Your task to perform on an android device: Search for flights from NYC to Paris Image 0: 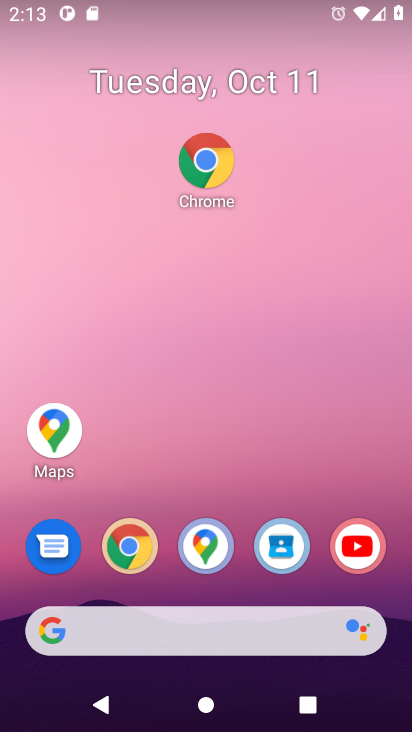
Step 0: click (126, 551)
Your task to perform on an android device: Search for flights from NYC to Paris Image 1: 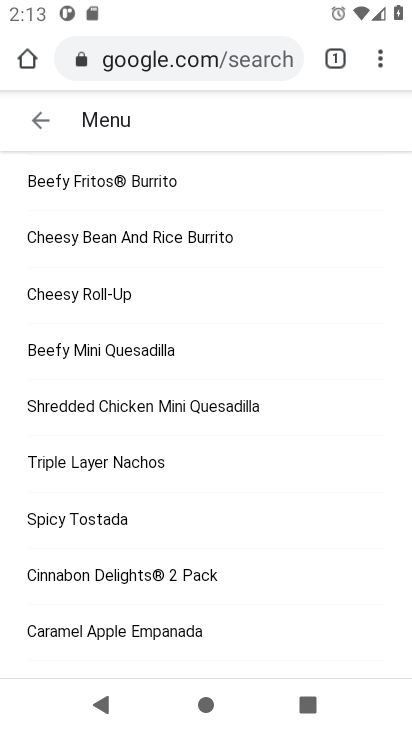
Step 1: click (182, 62)
Your task to perform on an android device: Search for flights from NYC to Paris Image 2: 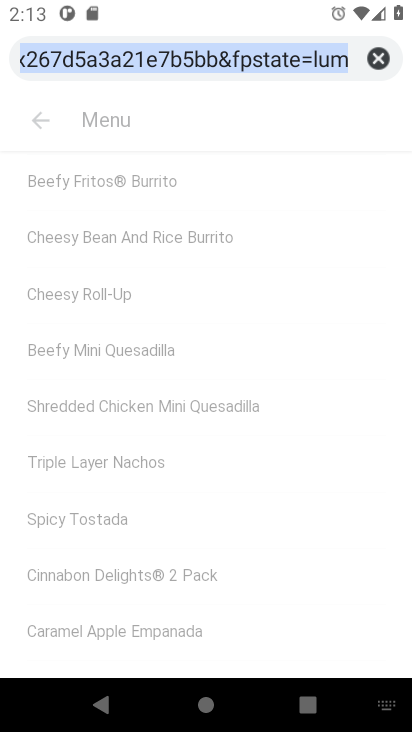
Step 2: type "flights from NYC to Paris"
Your task to perform on an android device: Search for flights from NYC to Paris Image 3: 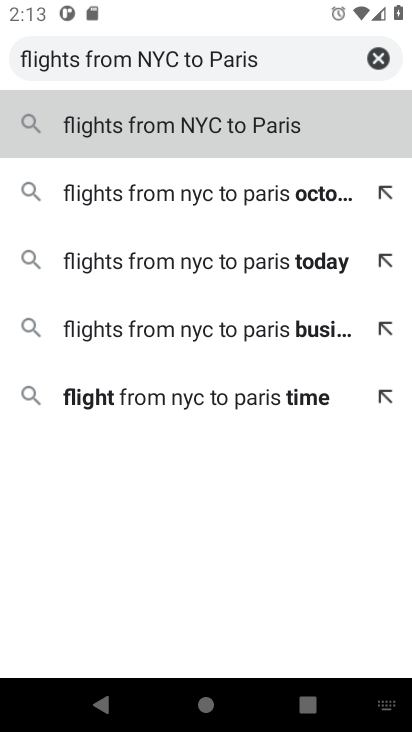
Step 3: press enter
Your task to perform on an android device: Search for flights from NYC to Paris Image 4: 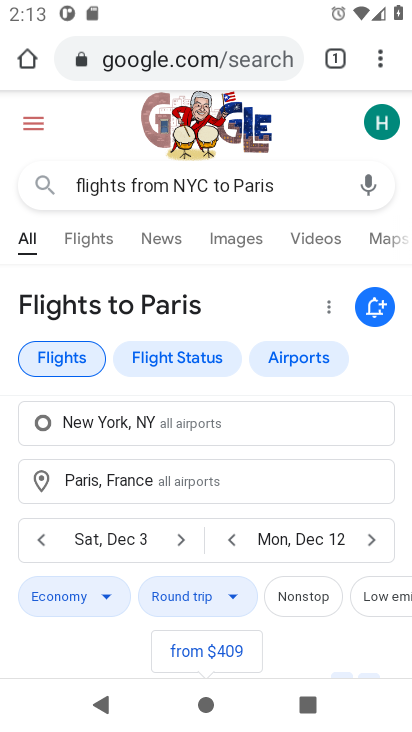
Step 4: drag from (292, 580) to (286, 185)
Your task to perform on an android device: Search for flights from NYC to Paris Image 5: 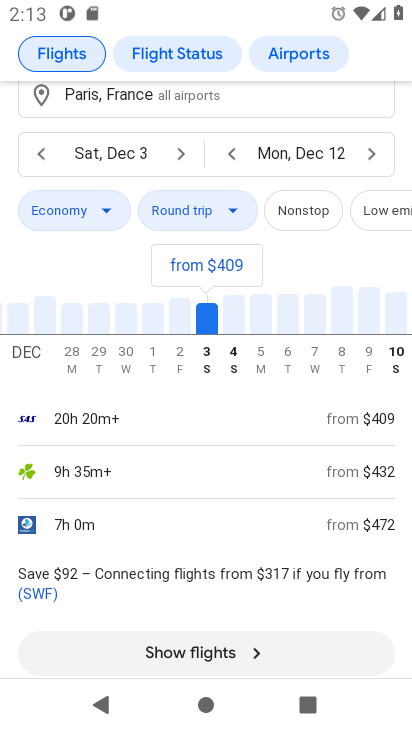
Step 5: click (219, 658)
Your task to perform on an android device: Search for flights from NYC to Paris Image 6: 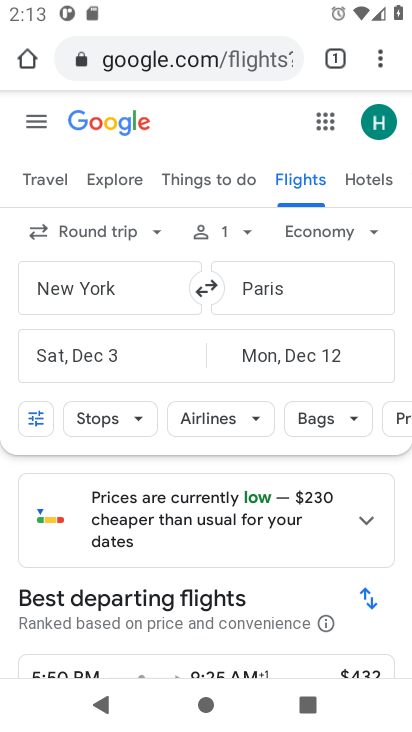
Step 6: task complete